Your task to perform on an android device: Open calendar and show me the third week of next month Image 0: 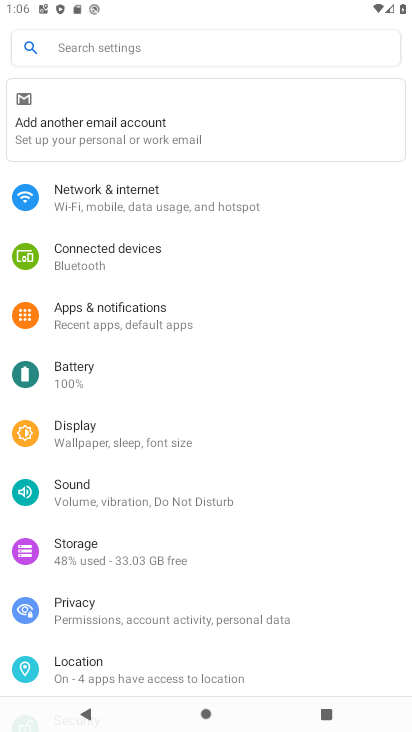
Step 0: press home button
Your task to perform on an android device: Open calendar and show me the third week of next month Image 1: 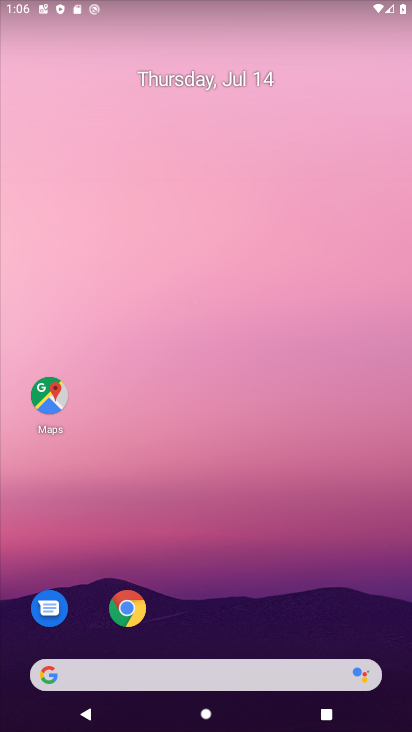
Step 1: drag from (383, 637) to (317, 46)
Your task to perform on an android device: Open calendar and show me the third week of next month Image 2: 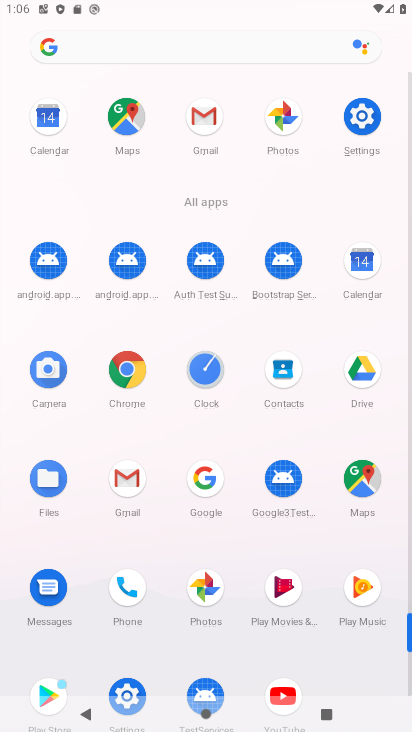
Step 2: click (358, 261)
Your task to perform on an android device: Open calendar and show me the third week of next month Image 3: 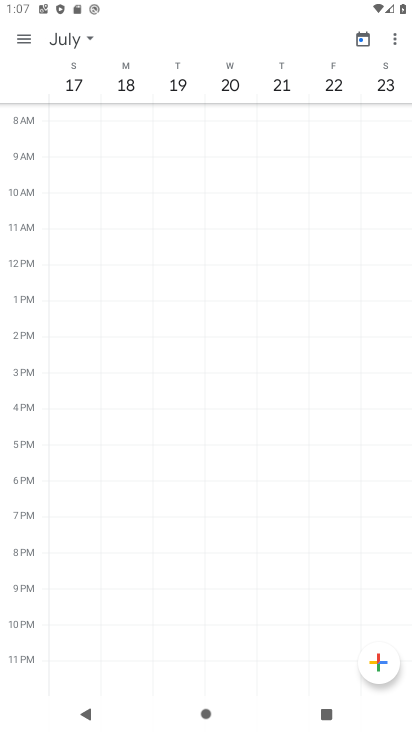
Step 3: click (87, 37)
Your task to perform on an android device: Open calendar and show me the third week of next month Image 4: 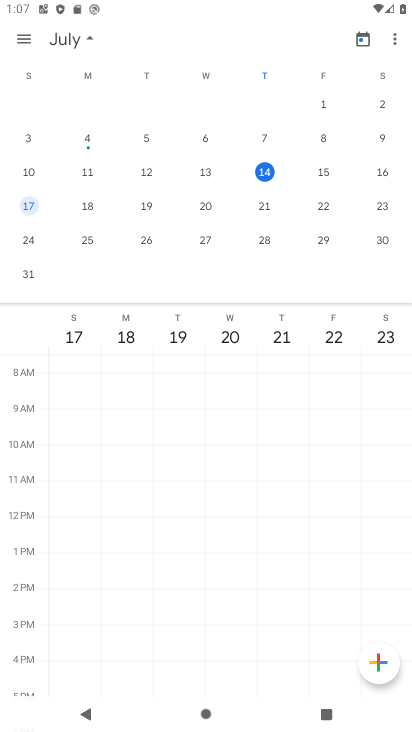
Step 4: drag from (392, 216) to (17, 187)
Your task to perform on an android device: Open calendar and show me the third week of next month Image 5: 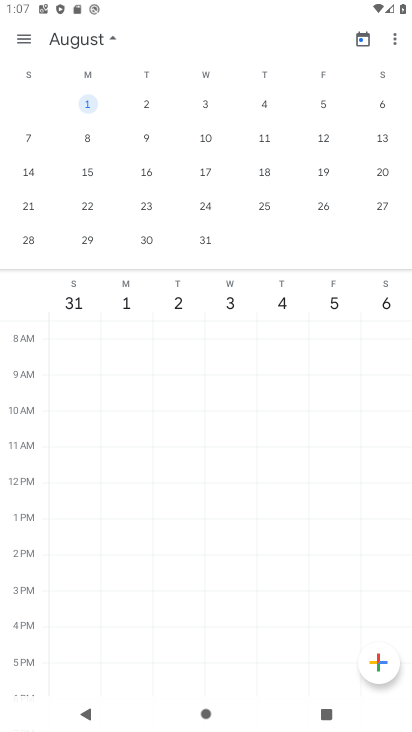
Step 5: click (23, 204)
Your task to perform on an android device: Open calendar and show me the third week of next month Image 6: 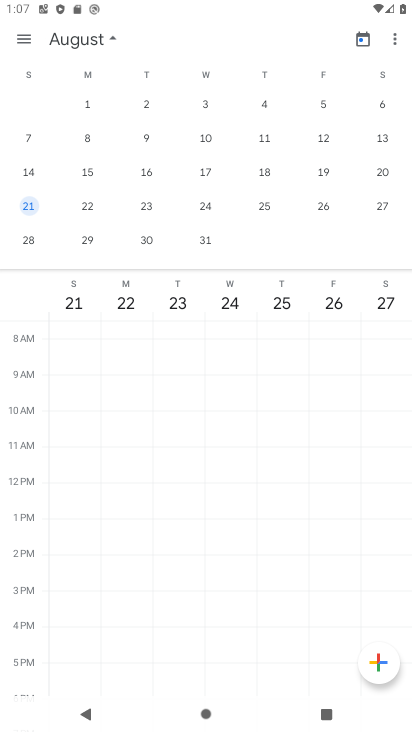
Step 6: task complete